Your task to perform on an android device: Empty the shopping cart on bestbuy. Image 0: 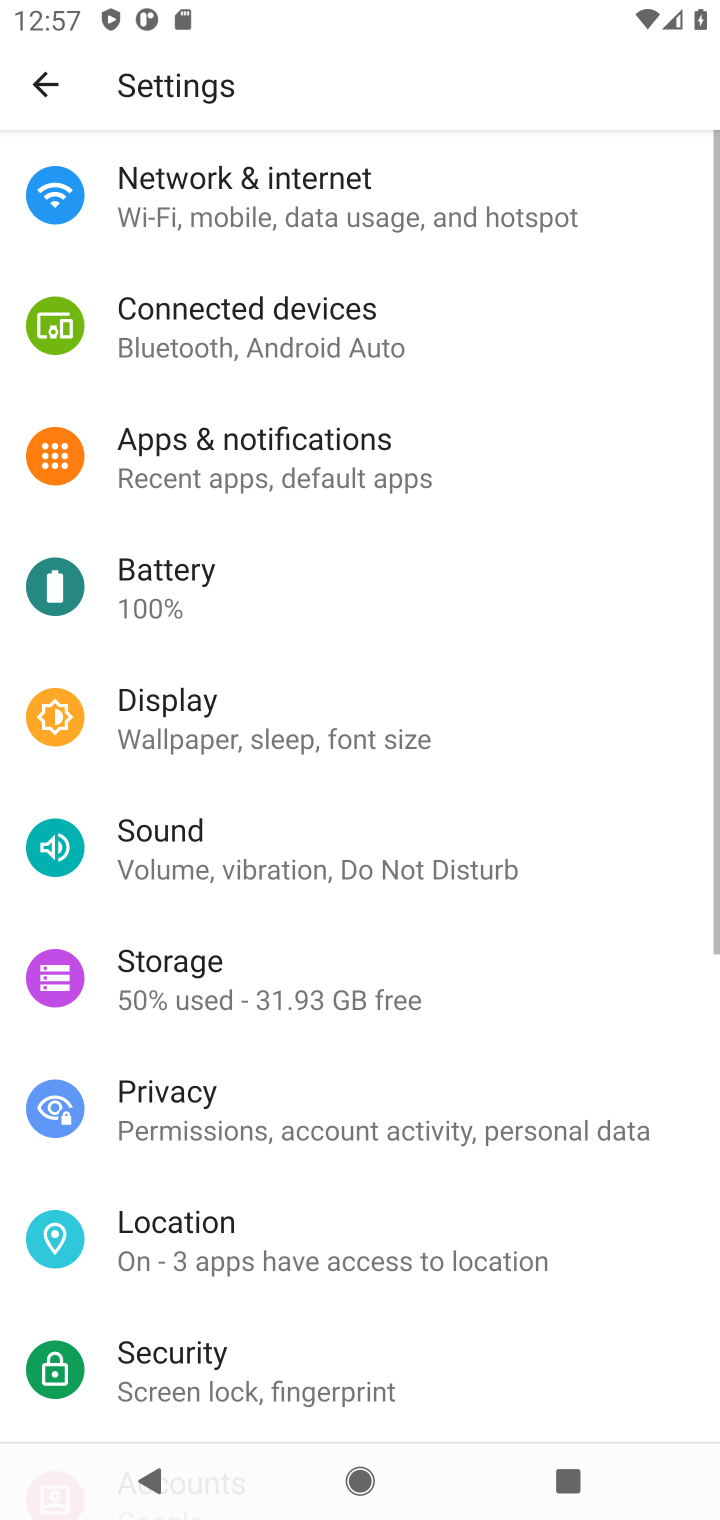
Step 0: press home button
Your task to perform on an android device: Empty the shopping cart on bestbuy. Image 1: 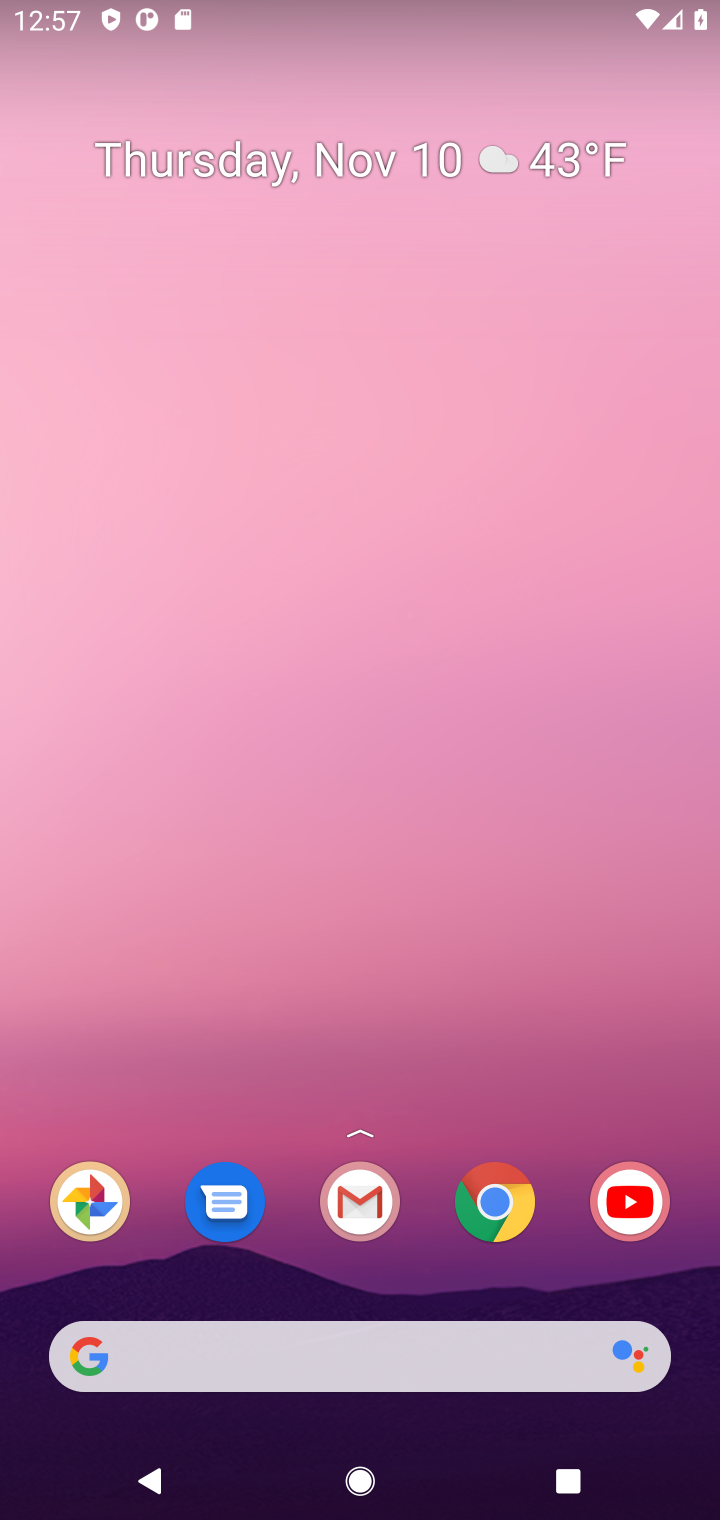
Step 1: click (500, 1216)
Your task to perform on an android device: Empty the shopping cart on bestbuy. Image 2: 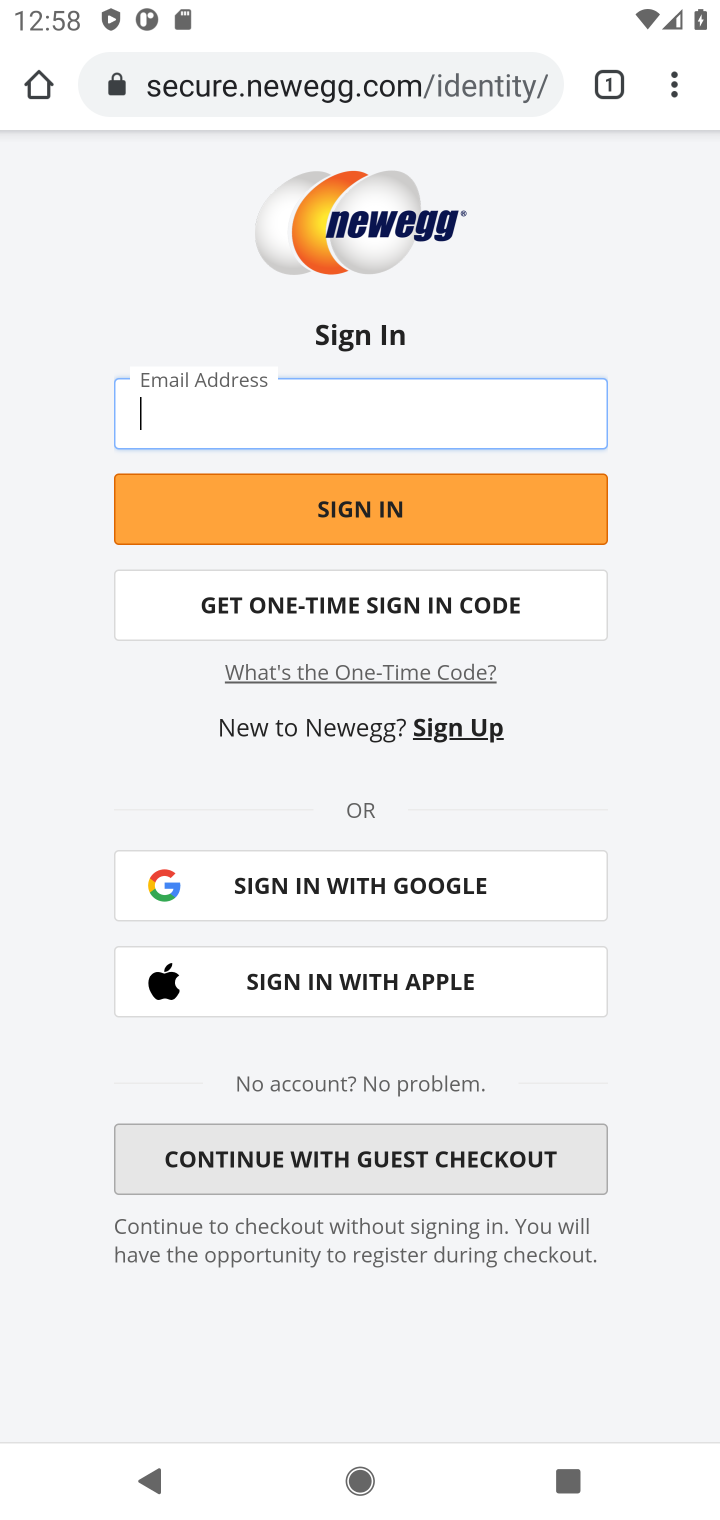
Step 2: click (478, 98)
Your task to perform on an android device: Empty the shopping cart on bestbuy. Image 3: 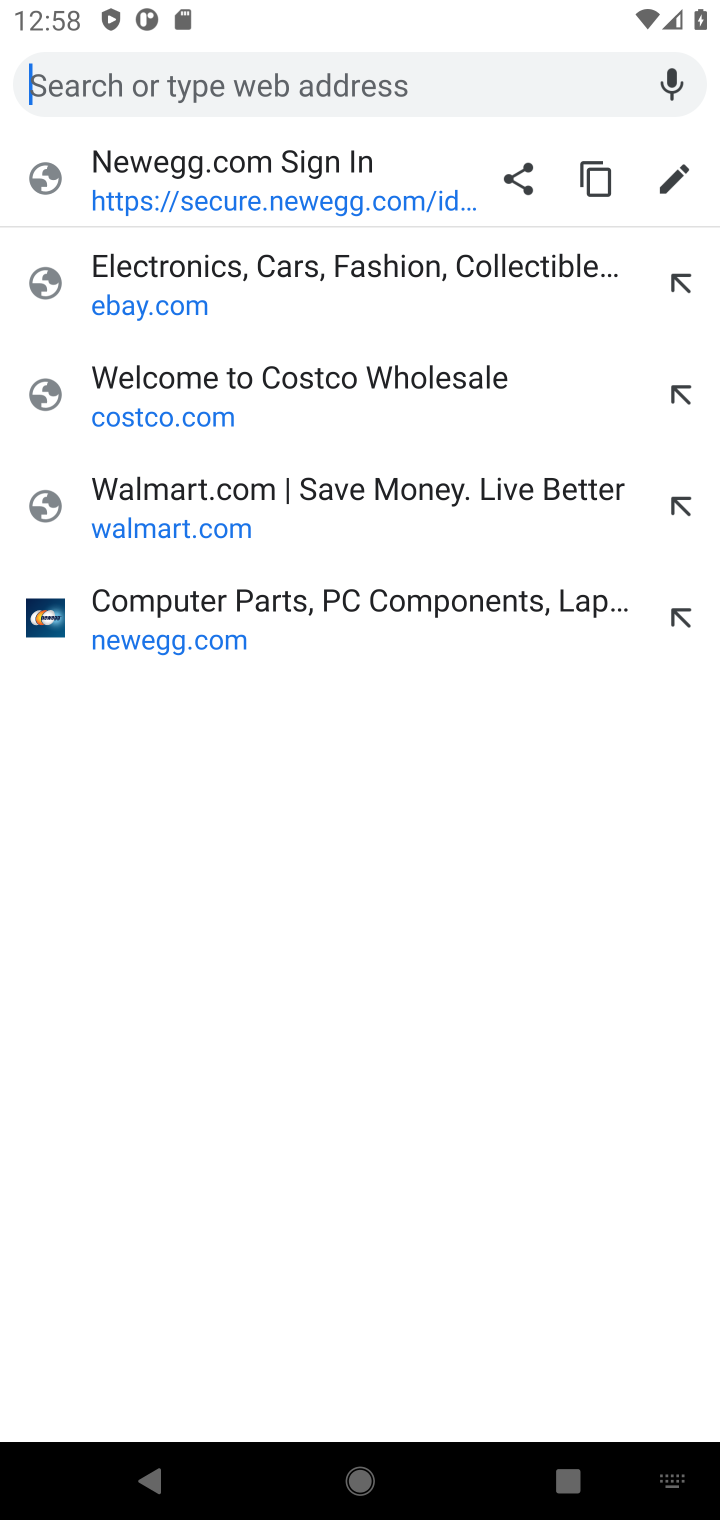
Step 3: press enter
Your task to perform on an android device: Empty the shopping cart on bestbuy. Image 4: 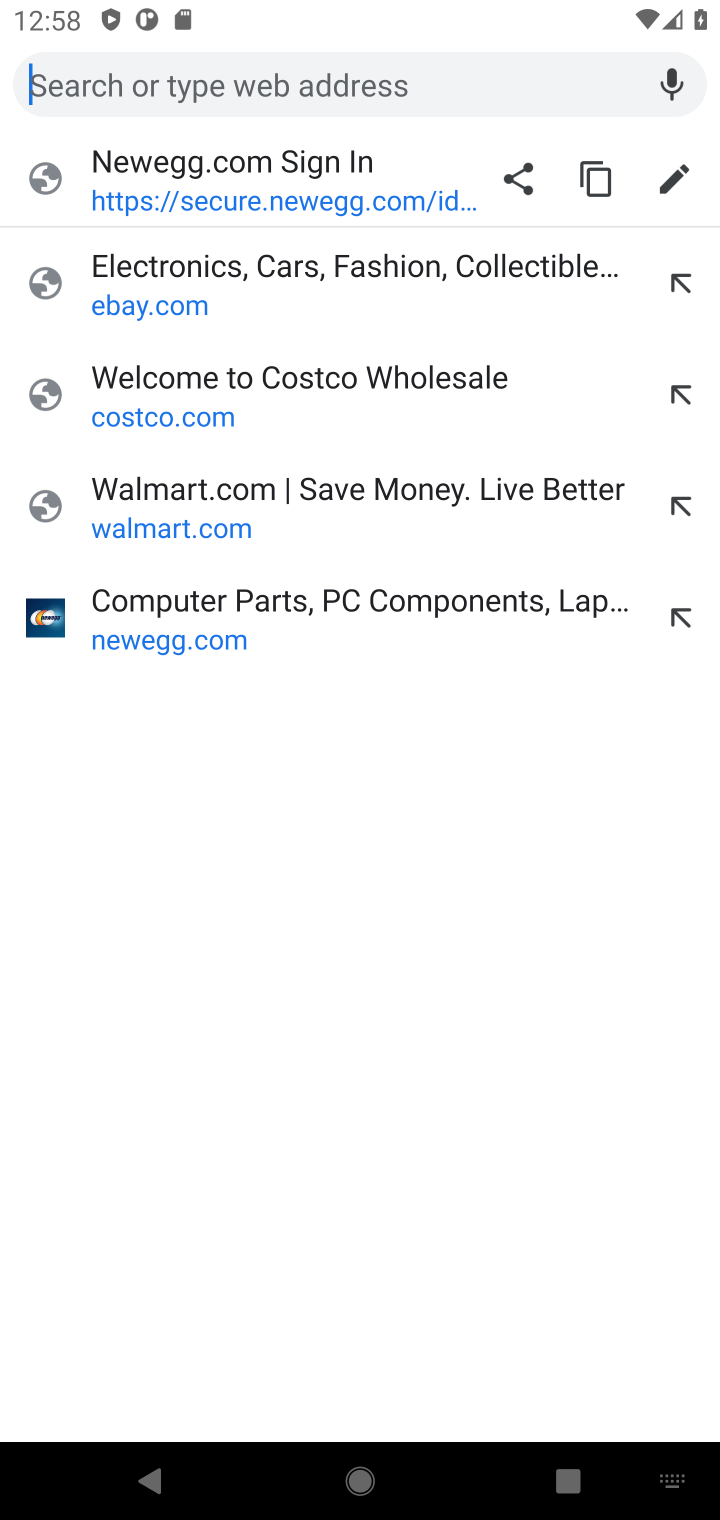
Step 4: type "bestbuy"
Your task to perform on an android device: Empty the shopping cart on bestbuy. Image 5: 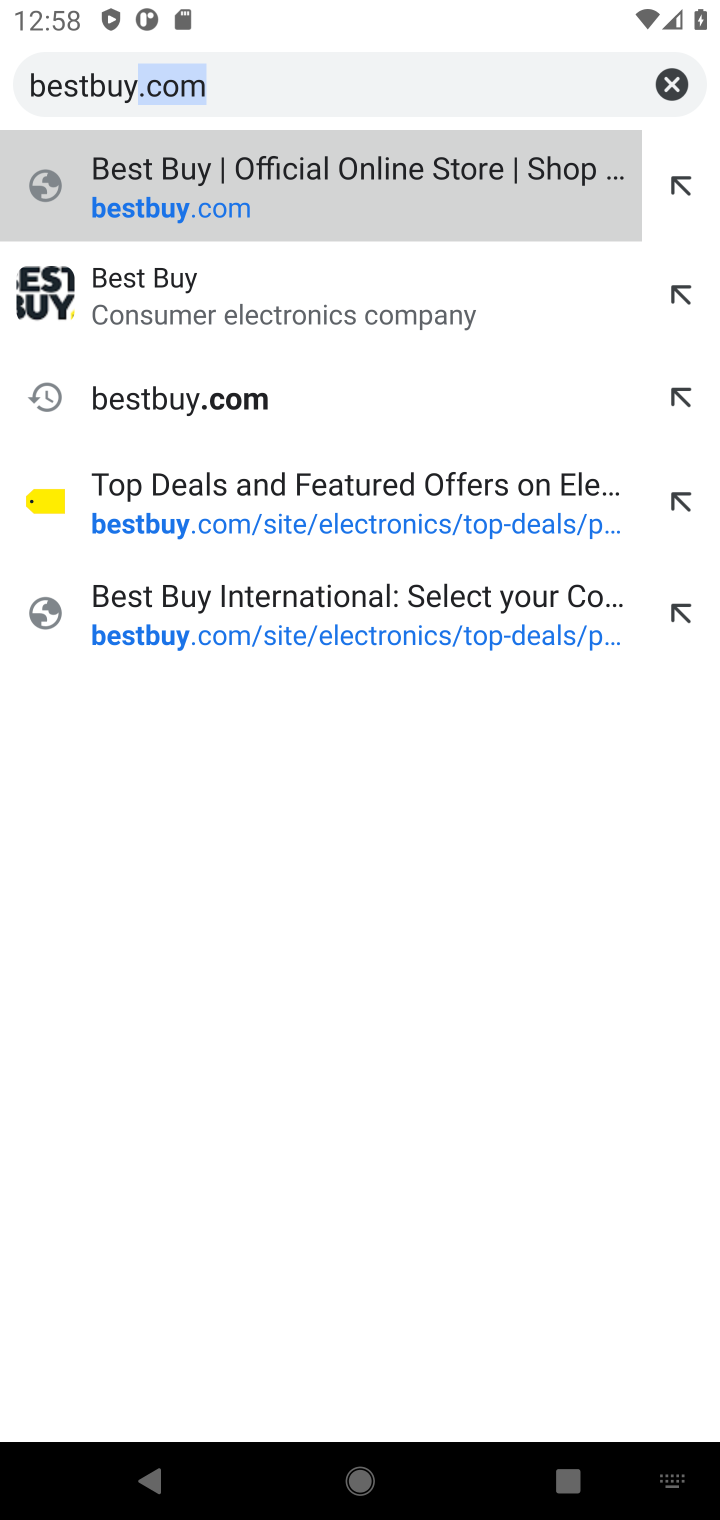
Step 5: click (536, 68)
Your task to perform on an android device: Empty the shopping cart on bestbuy. Image 6: 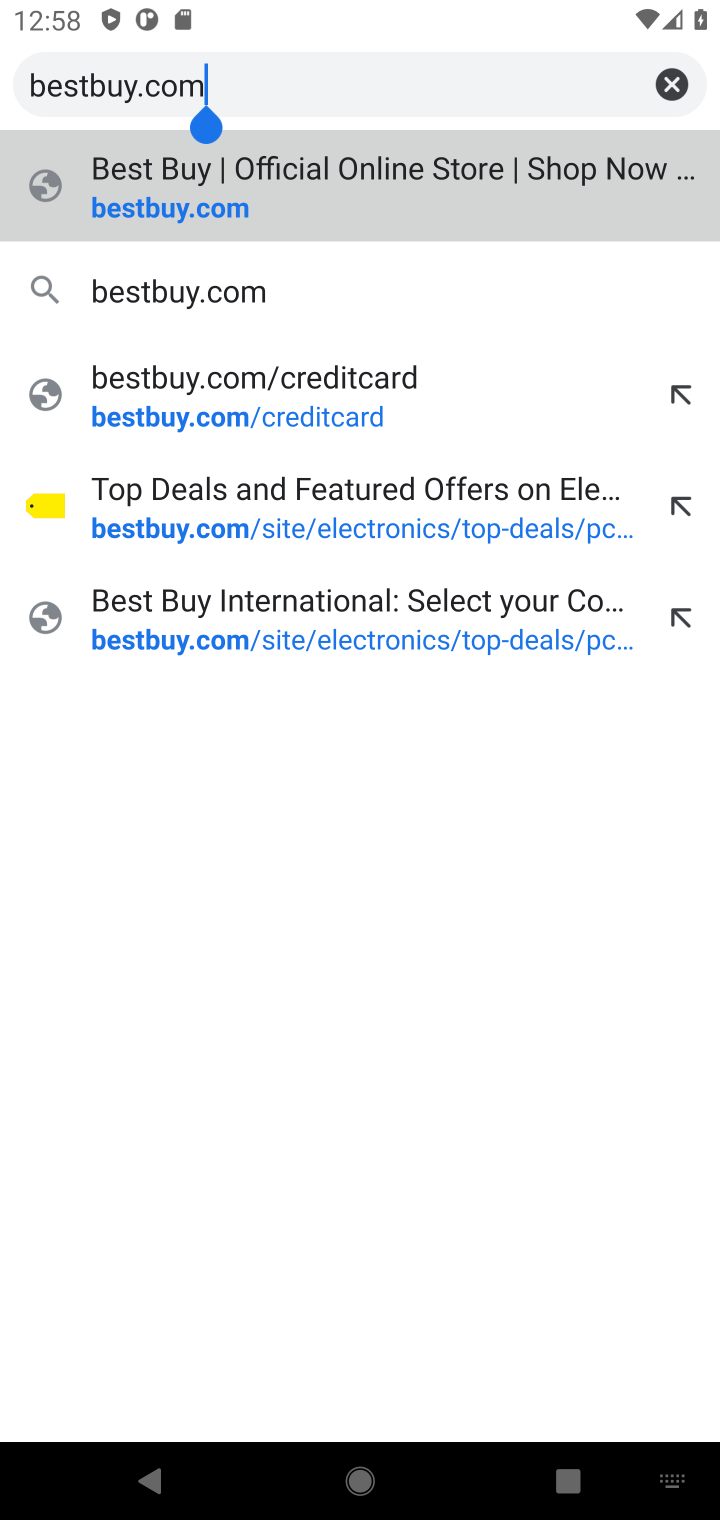
Step 6: click (247, 279)
Your task to perform on an android device: Empty the shopping cart on bestbuy. Image 7: 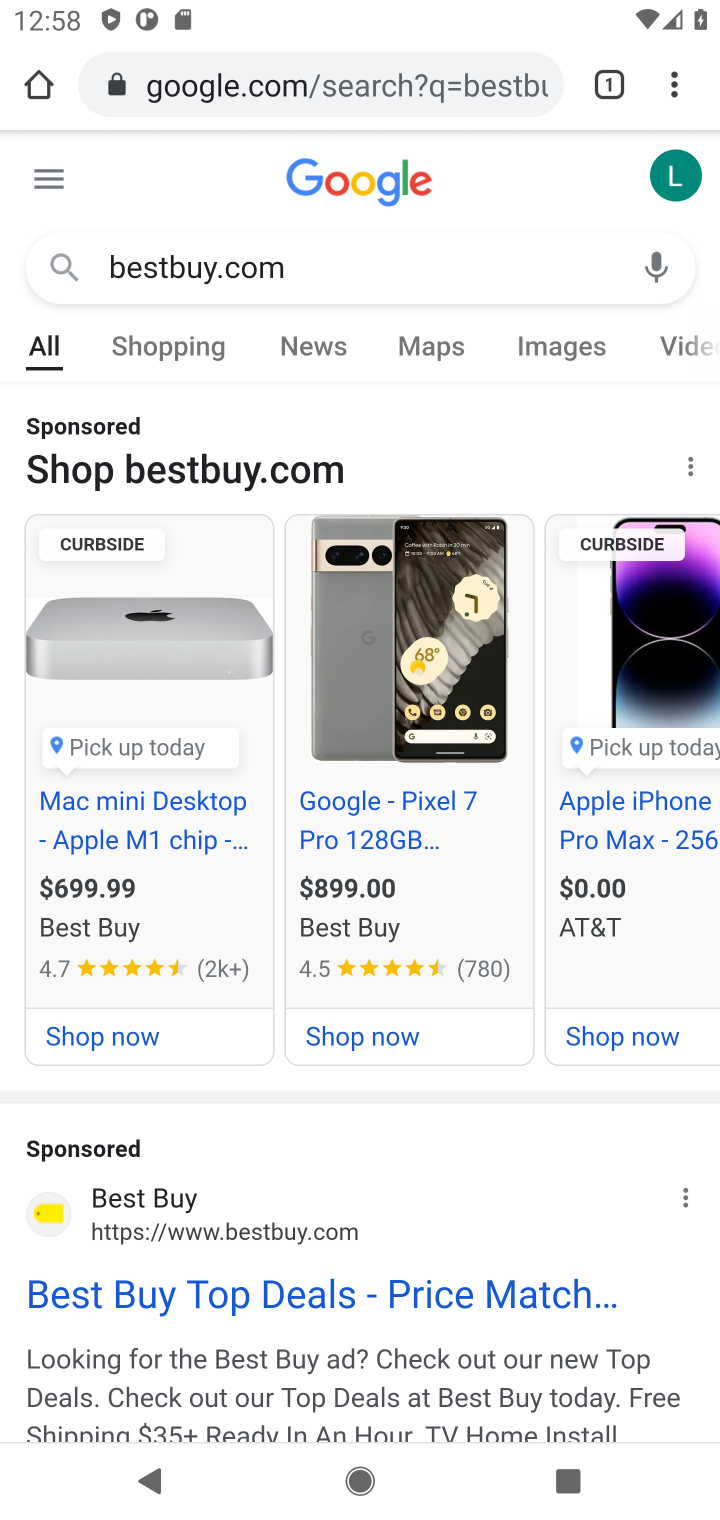
Step 7: click (258, 1227)
Your task to perform on an android device: Empty the shopping cart on bestbuy. Image 8: 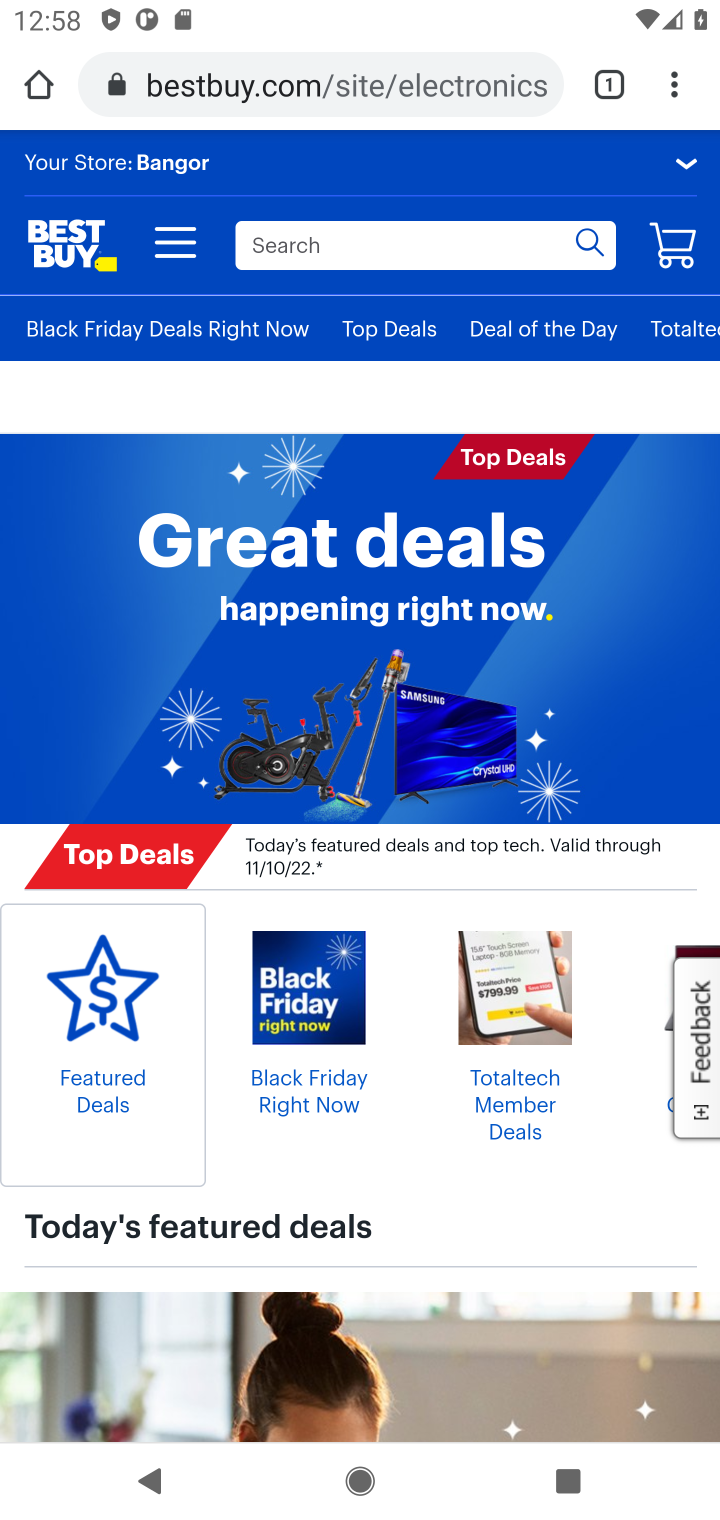
Step 8: click (673, 234)
Your task to perform on an android device: Empty the shopping cart on bestbuy. Image 9: 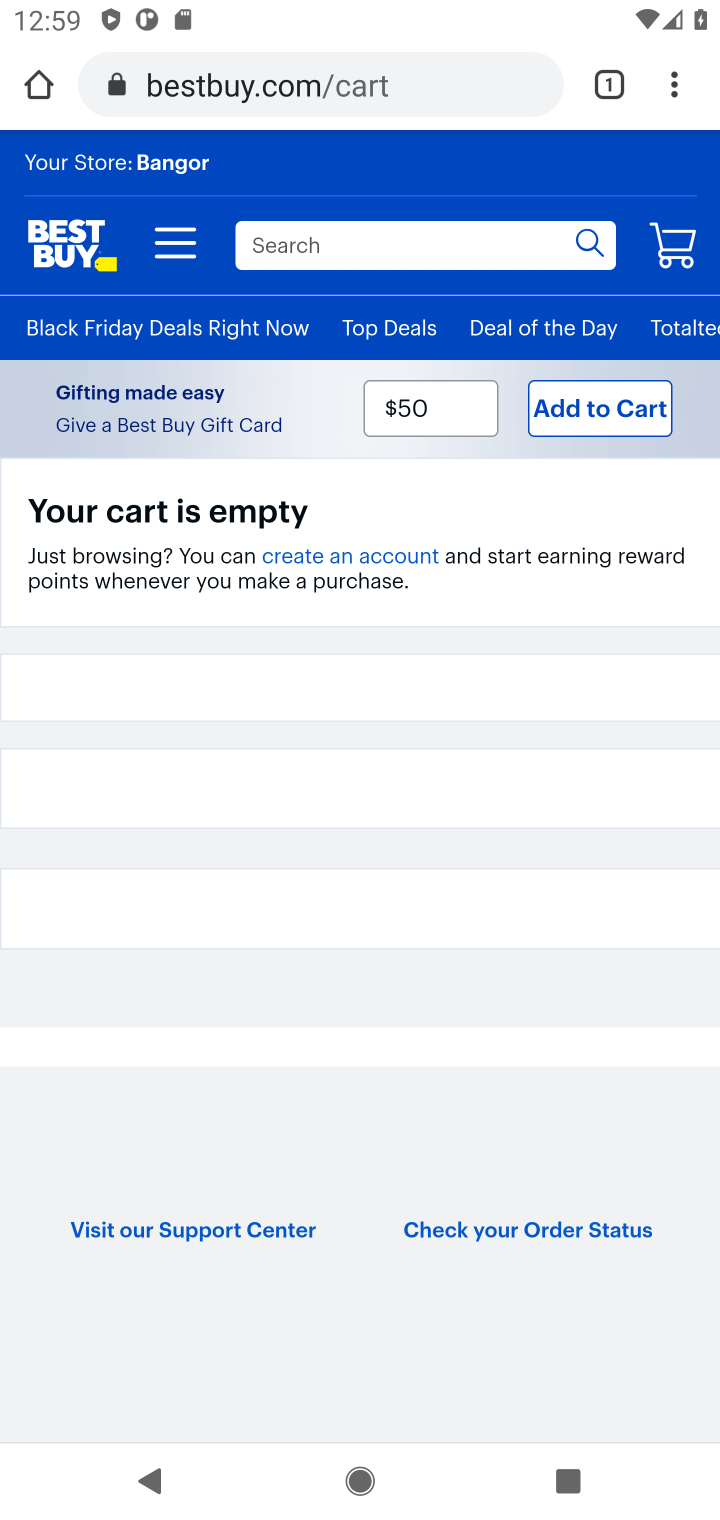
Step 9: task complete